Your task to perform on an android device: turn notification dots off Image 0: 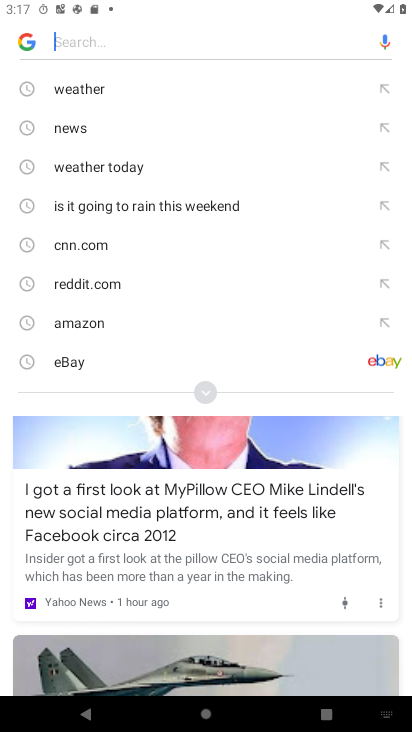
Step 0: press home button
Your task to perform on an android device: turn notification dots off Image 1: 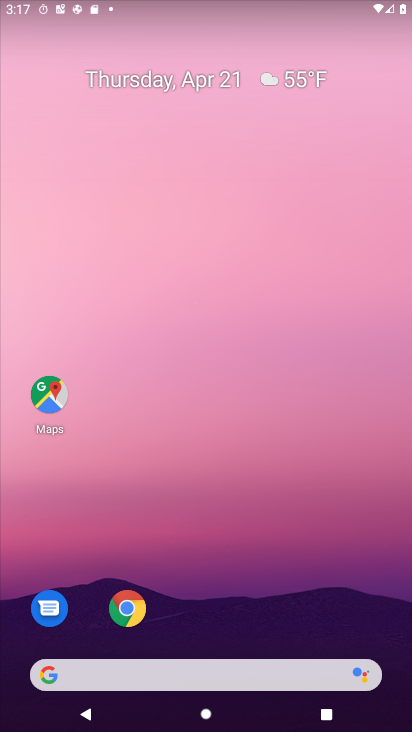
Step 1: drag from (296, 499) to (235, 68)
Your task to perform on an android device: turn notification dots off Image 2: 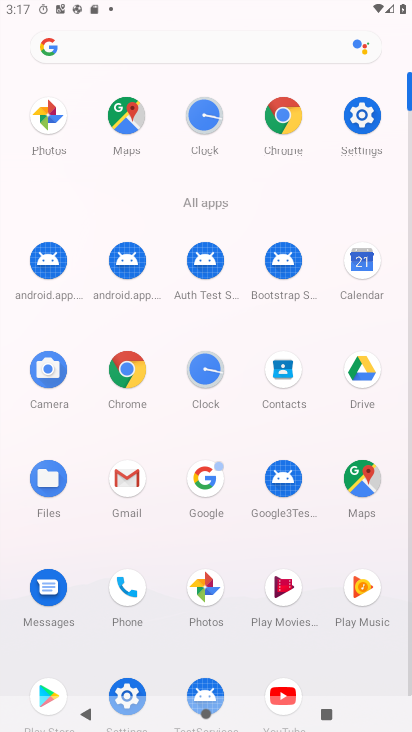
Step 2: click (360, 119)
Your task to perform on an android device: turn notification dots off Image 3: 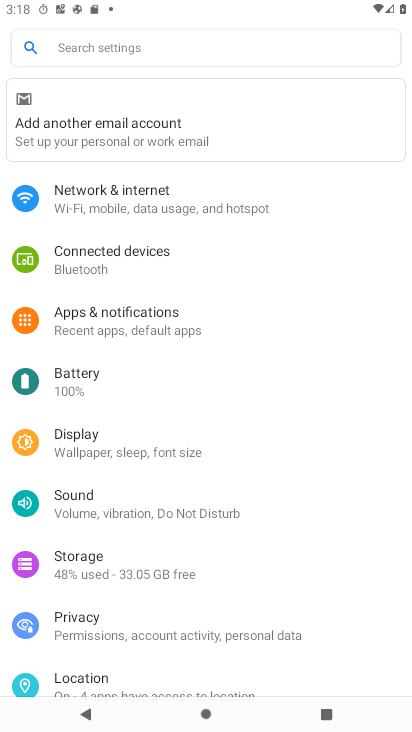
Step 3: click (183, 321)
Your task to perform on an android device: turn notification dots off Image 4: 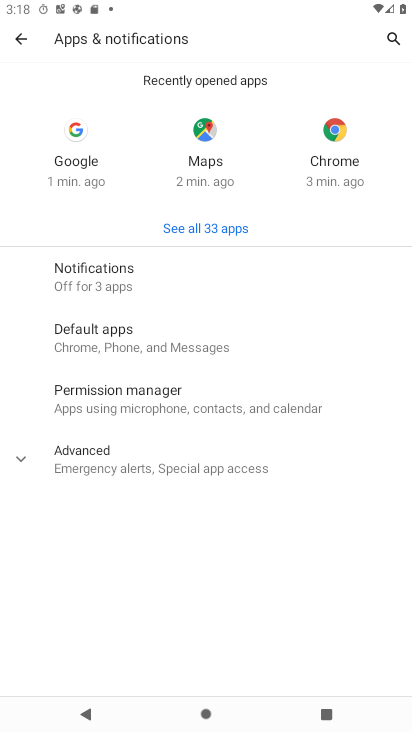
Step 4: click (140, 270)
Your task to perform on an android device: turn notification dots off Image 5: 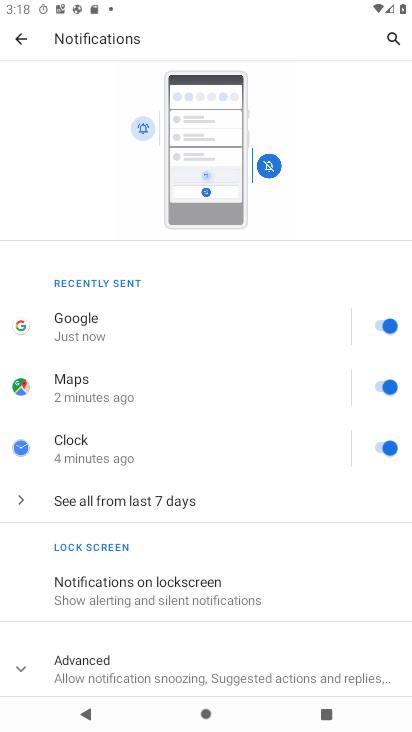
Step 5: drag from (156, 645) to (117, 322)
Your task to perform on an android device: turn notification dots off Image 6: 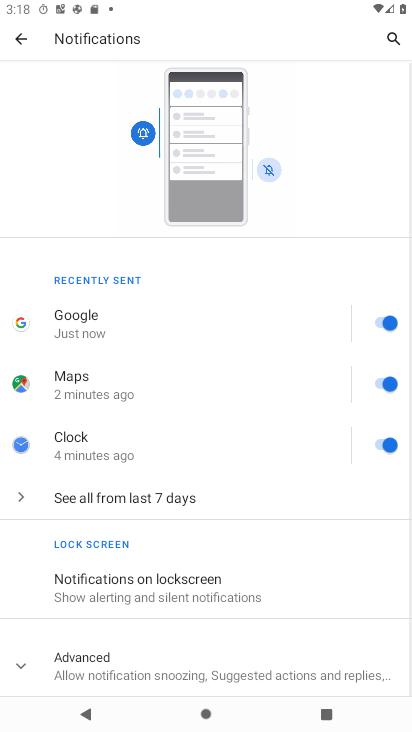
Step 6: click (146, 669)
Your task to perform on an android device: turn notification dots off Image 7: 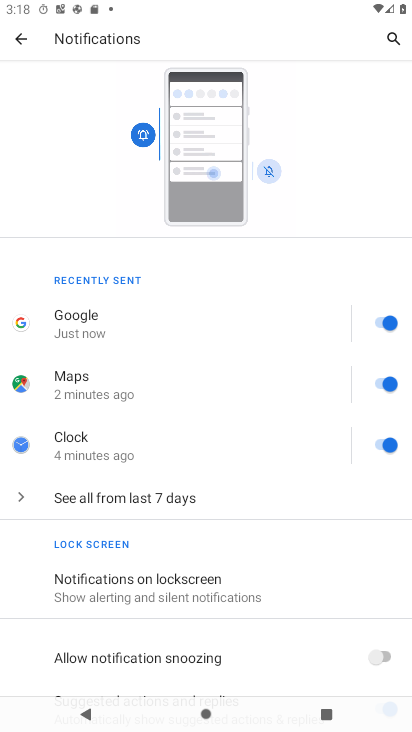
Step 7: drag from (251, 599) to (184, 208)
Your task to perform on an android device: turn notification dots off Image 8: 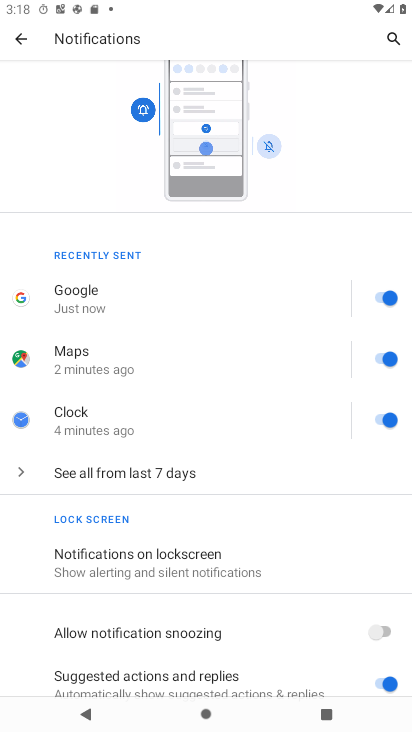
Step 8: drag from (210, 580) to (171, 97)
Your task to perform on an android device: turn notification dots off Image 9: 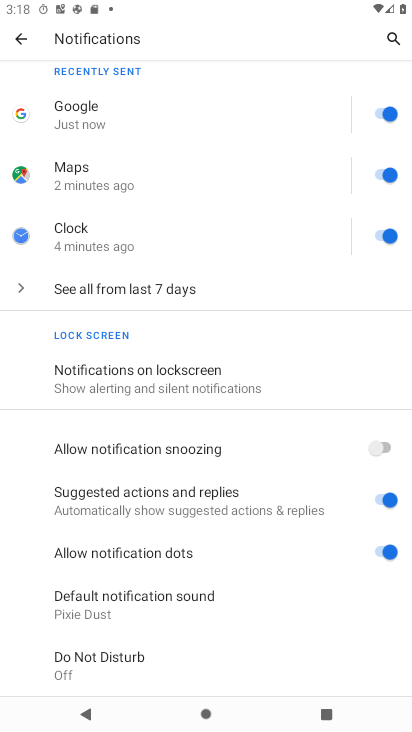
Step 9: click (124, 561)
Your task to perform on an android device: turn notification dots off Image 10: 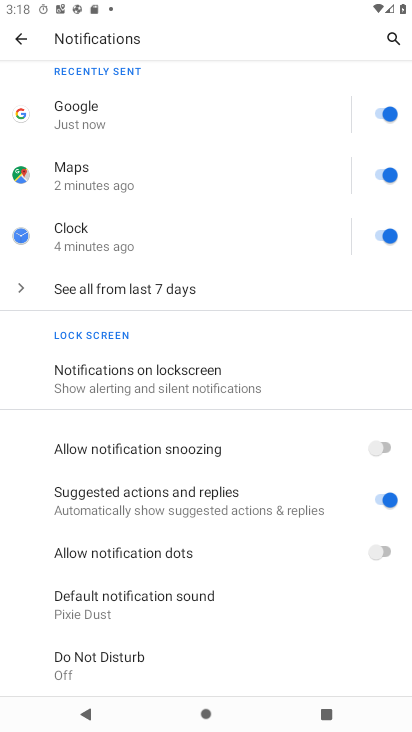
Step 10: task complete